Your task to perform on an android device: Open CNN.com Image 0: 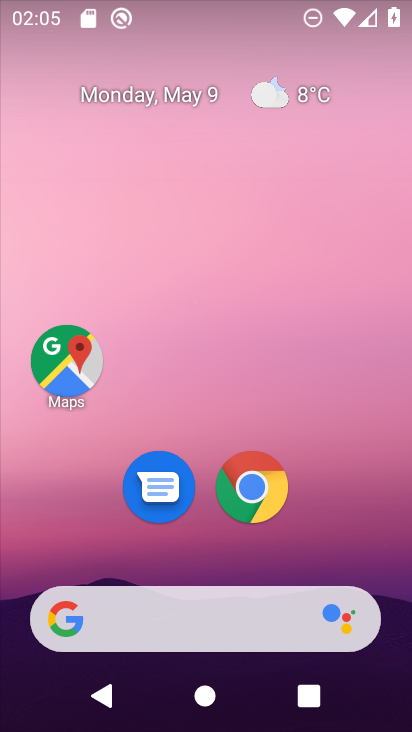
Step 0: click (251, 475)
Your task to perform on an android device: Open CNN.com Image 1: 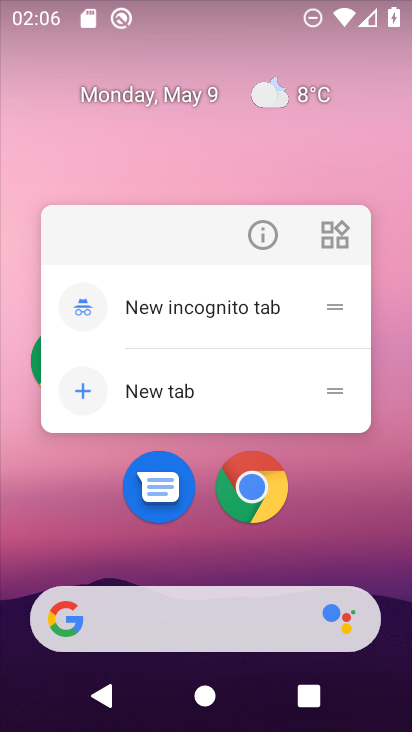
Step 1: click (266, 485)
Your task to perform on an android device: Open CNN.com Image 2: 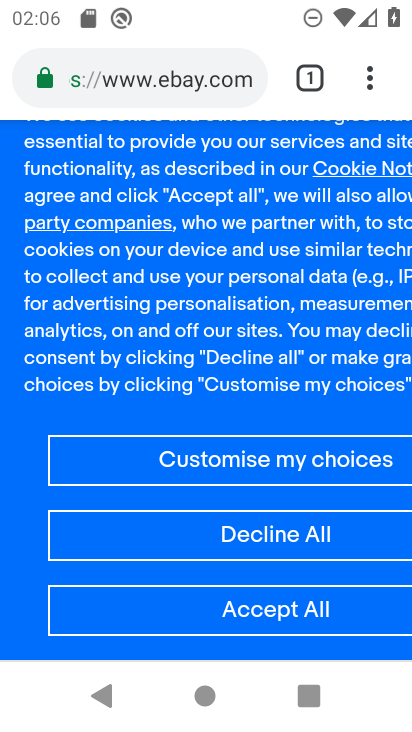
Step 2: click (320, 69)
Your task to perform on an android device: Open CNN.com Image 3: 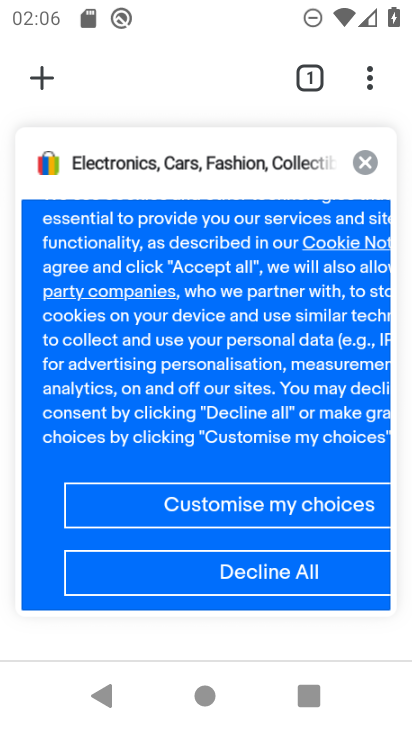
Step 3: click (362, 163)
Your task to perform on an android device: Open CNN.com Image 4: 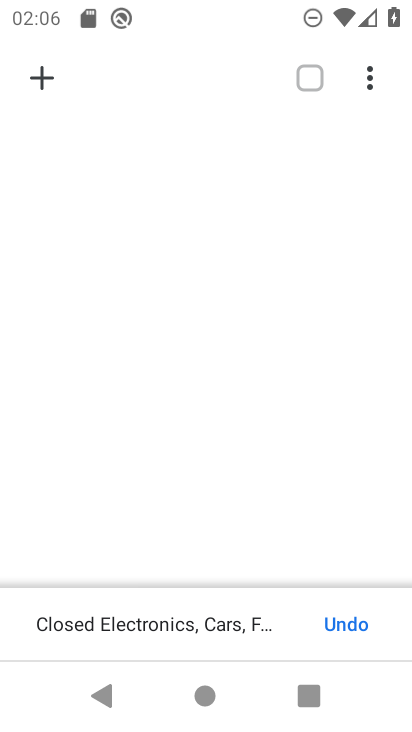
Step 4: click (46, 81)
Your task to perform on an android device: Open CNN.com Image 5: 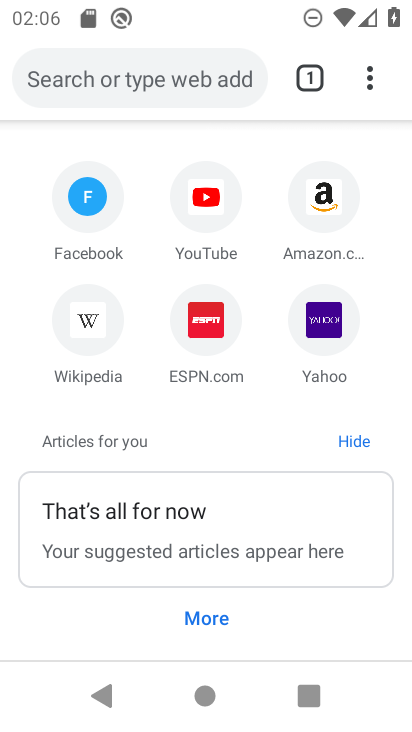
Step 5: click (205, 83)
Your task to perform on an android device: Open CNN.com Image 6: 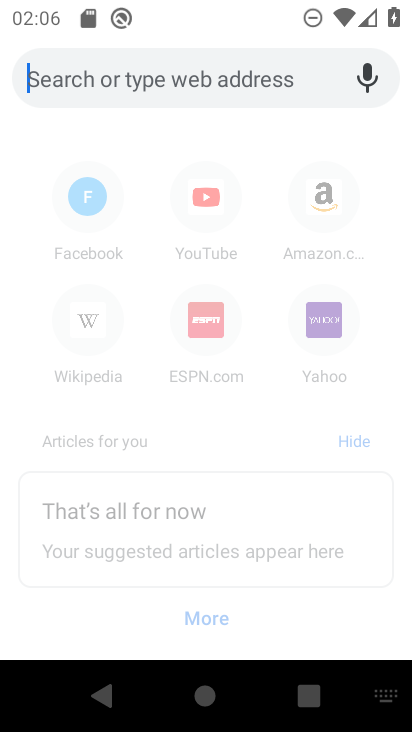
Step 6: type "cnn.com"
Your task to perform on an android device: Open CNN.com Image 7: 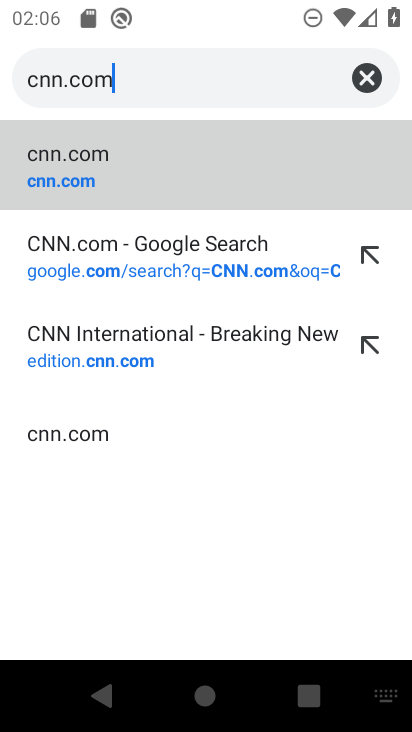
Step 7: type ""
Your task to perform on an android device: Open CNN.com Image 8: 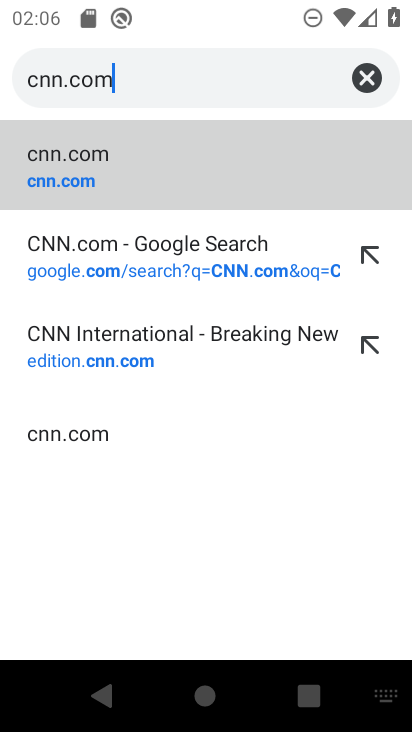
Step 8: click (169, 173)
Your task to perform on an android device: Open CNN.com Image 9: 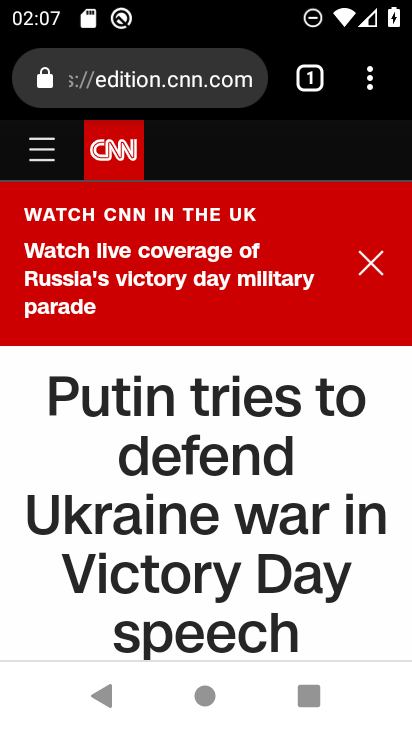
Step 9: task complete